Your task to perform on an android device: refresh tabs in the chrome app Image 0: 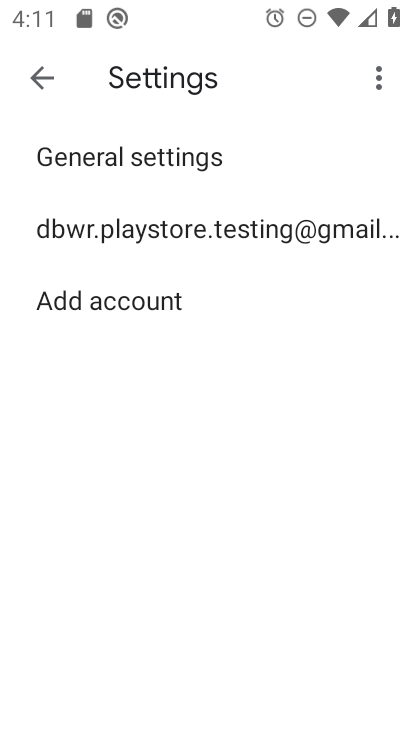
Step 0: press home button
Your task to perform on an android device: refresh tabs in the chrome app Image 1: 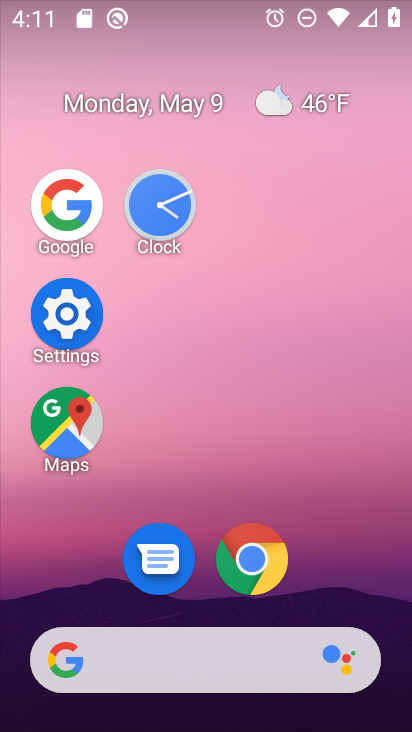
Step 1: drag from (343, 596) to (326, 174)
Your task to perform on an android device: refresh tabs in the chrome app Image 2: 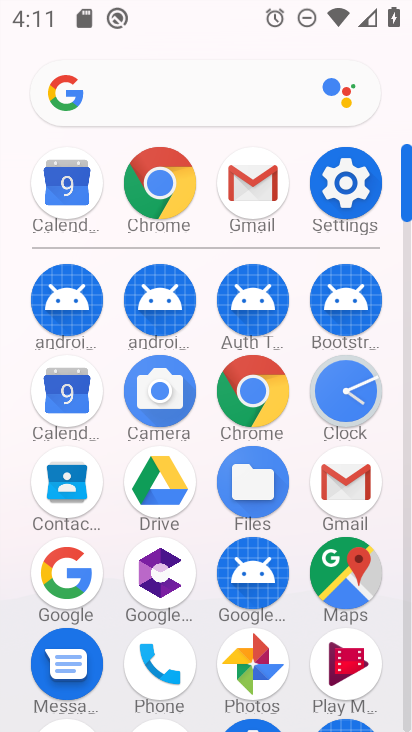
Step 2: click (155, 172)
Your task to perform on an android device: refresh tabs in the chrome app Image 3: 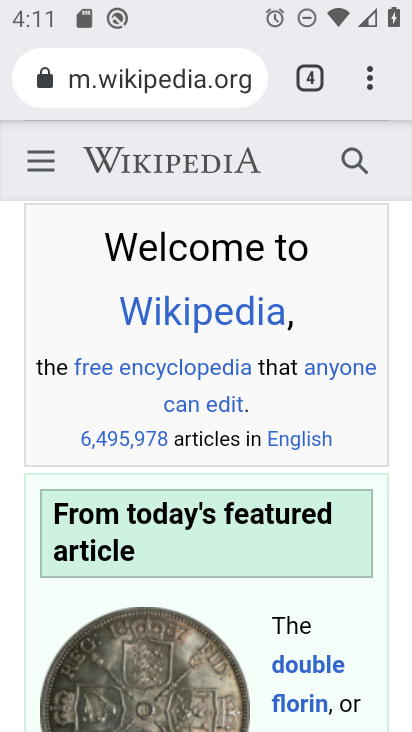
Step 3: click (381, 81)
Your task to perform on an android device: refresh tabs in the chrome app Image 4: 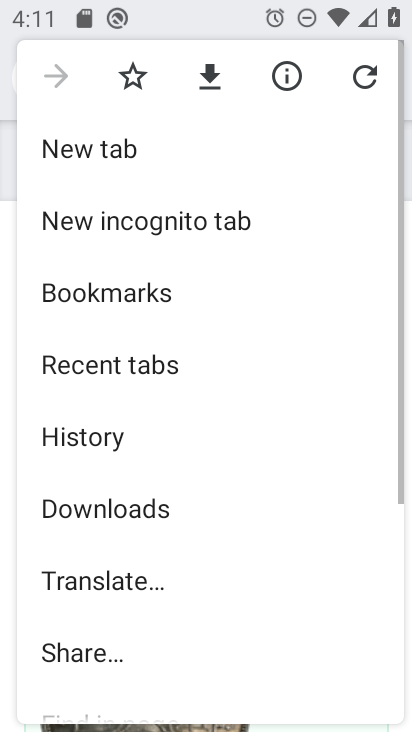
Step 4: click (381, 81)
Your task to perform on an android device: refresh tabs in the chrome app Image 5: 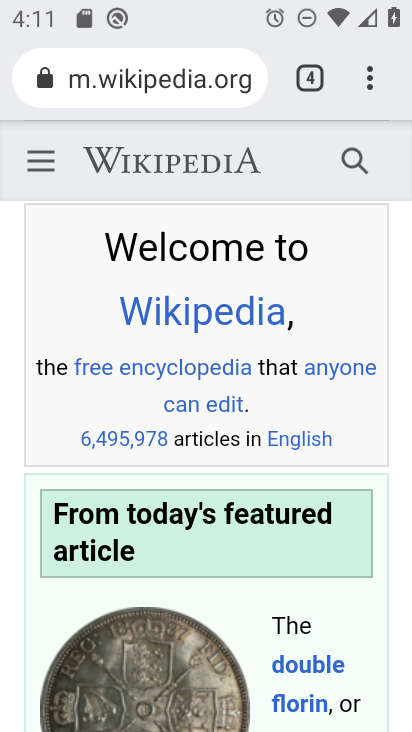
Step 5: click (373, 77)
Your task to perform on an android device: refresh tabs in the chrome app Image 6: 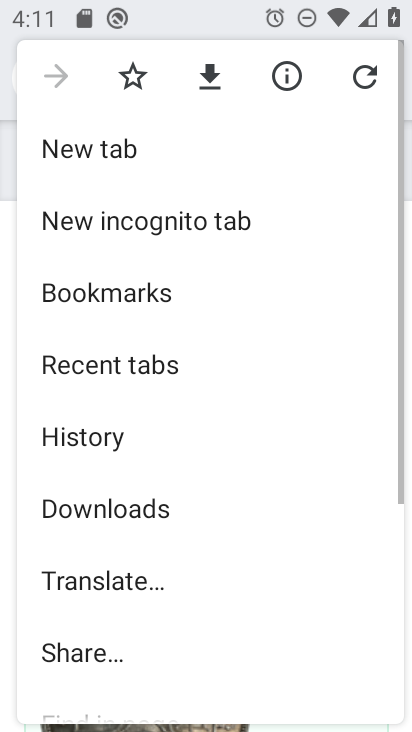
Step 6: click (373, 77)
Your task to perform on an android device: refresh tabs in the chrome app Image 7: 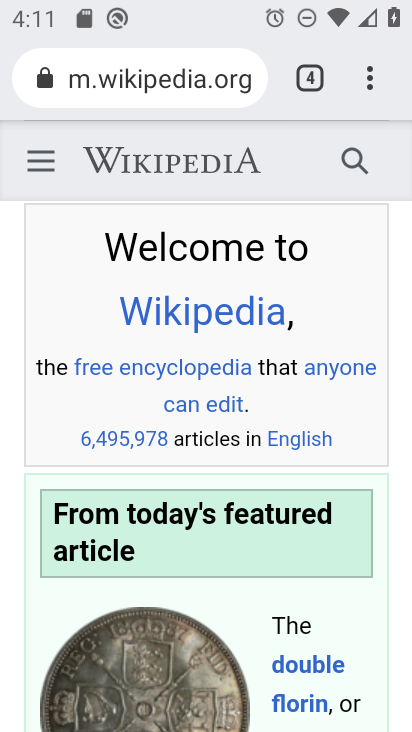
Step 7: task complete